Your task to perform on an android device: Open the calendar app, open the side menu, and click the "Day" option Image 0: 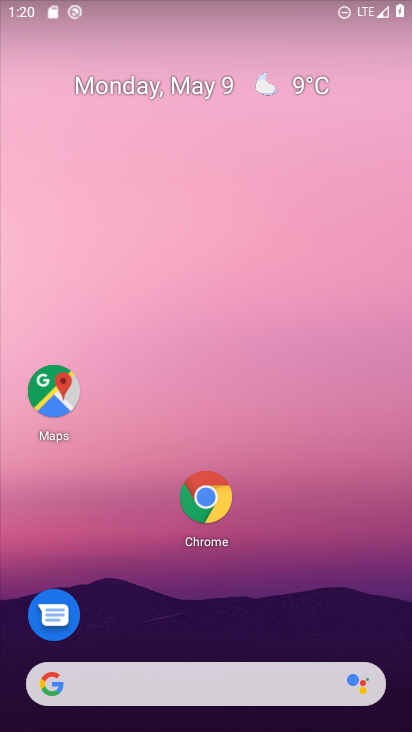
Step 0: drag from (359, 597) to (240, 114)
Your task to perform on an android device: Open the calendar app, open the side menu, and click the "Day" option Image 1: 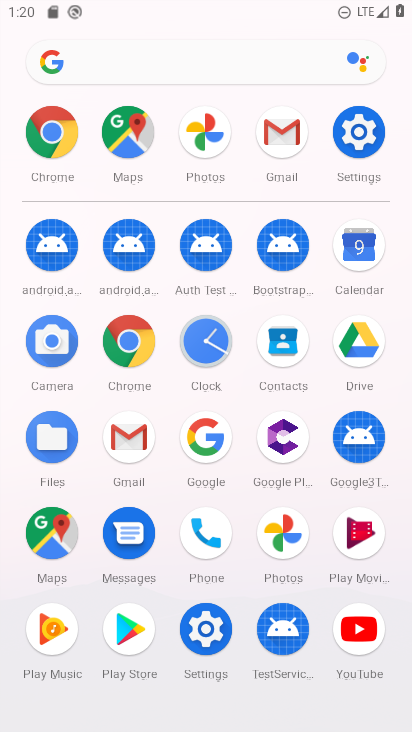
Step 1: click (366, 248)
Your task to perform on an android device: Open the calendar app, open the side menu, and click the "Day" option Image 2: 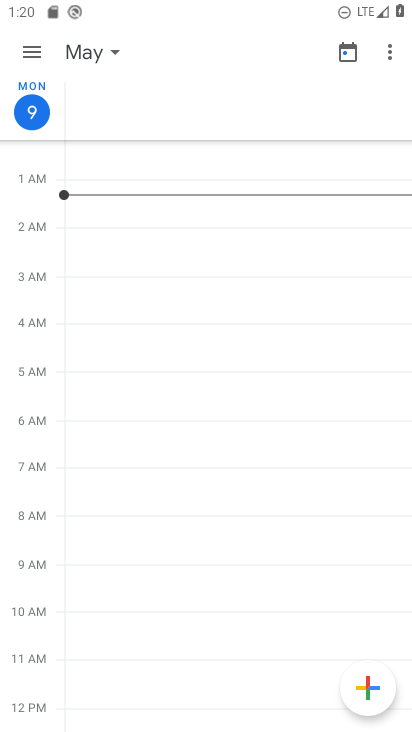
Step 2: click (33, 47)
Your task to perform on an android device: Open the calendar app, open the side menu, and click the "Day" option Image 3: 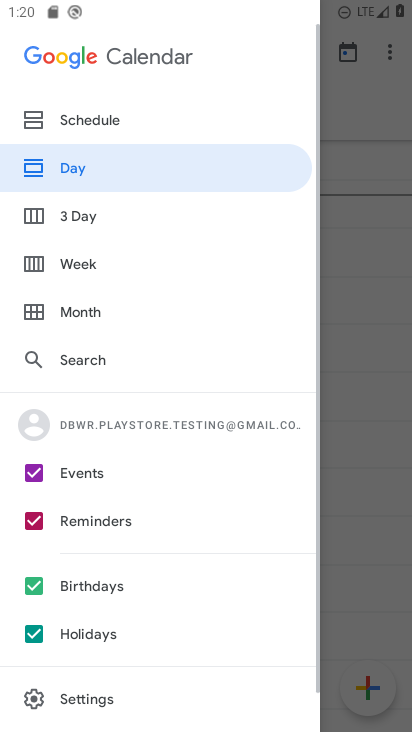
Step 3: click (79, 164)
Your task to perform on an android device: Open the calendar app, open the side menu, and click the "Day" option Image 4: 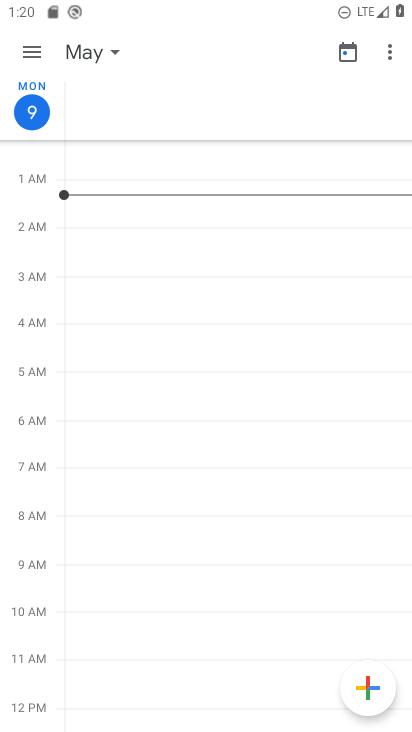
Step 4: task complete